Your task to perform on an android device: Open ESPN.com Image 0: 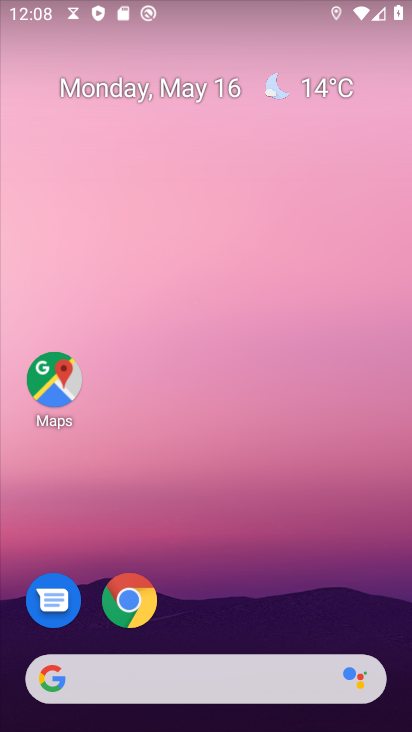
Step 0: drag from (283, 539) to (279, 1)
Your task to perform on an android device: Open ESPN.com Image 1: 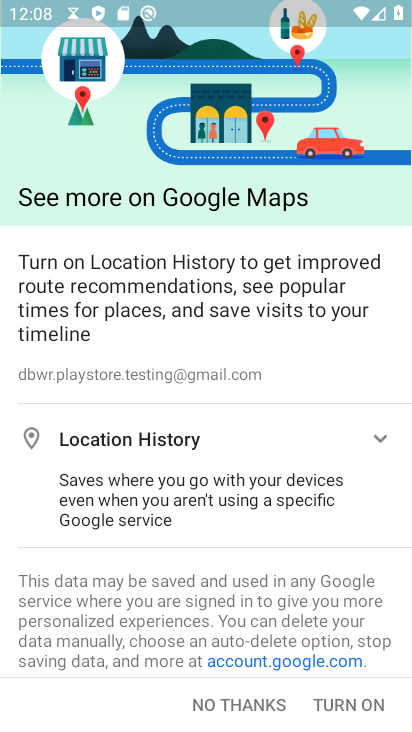
Step 1: click (336, 707)
Your task to perform on an android device: Open ESPN.com Image 2: 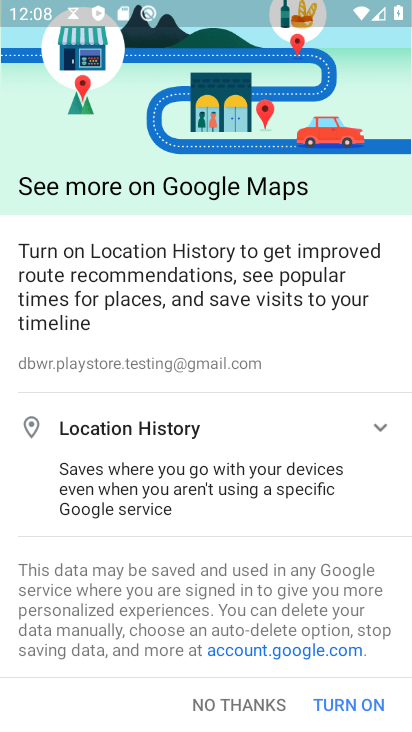
Step 2: click (337, 705)
Your task to perform on an android device: Open ESPN.com Image 3: 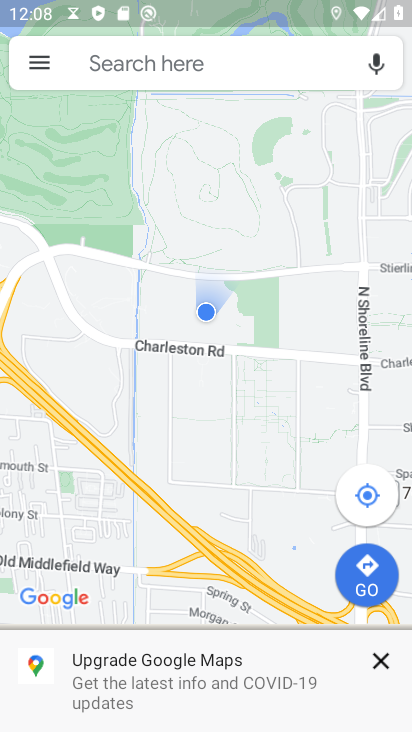
Step 3: press back button
Your task to perform on an android device: Open ESPN.com Image 4: 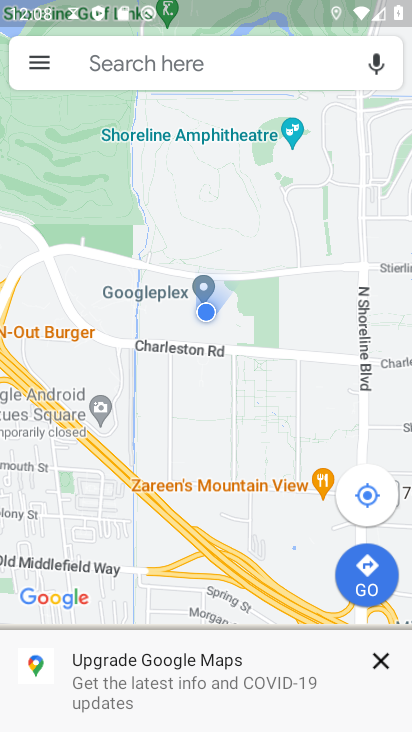
Step 4: press back button
Your task to perform on an android device: Open ESPN.com Image 5: 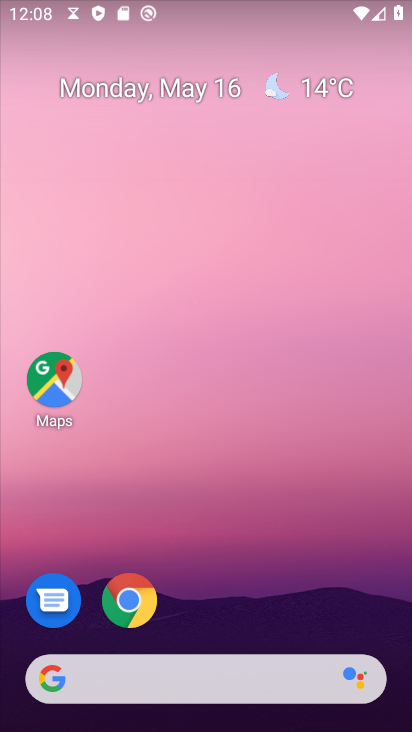
Step 5: click (124, 596)
Your task to perform on an android device: Open ESPN.com Image 6: 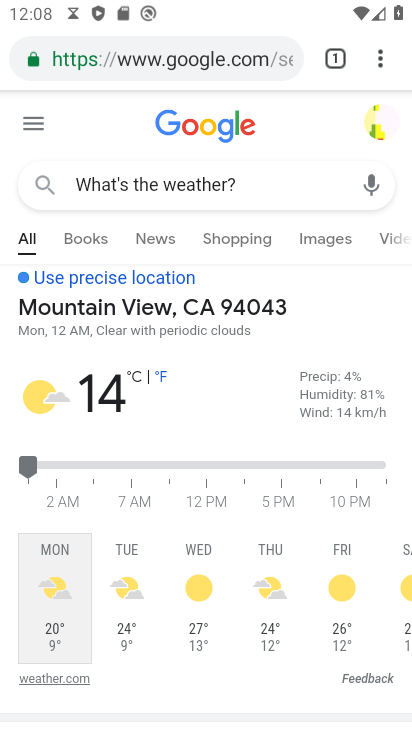
Step 6: click (181, 45)
Your task to perform on an android device: Open ESPN.com Image 7: 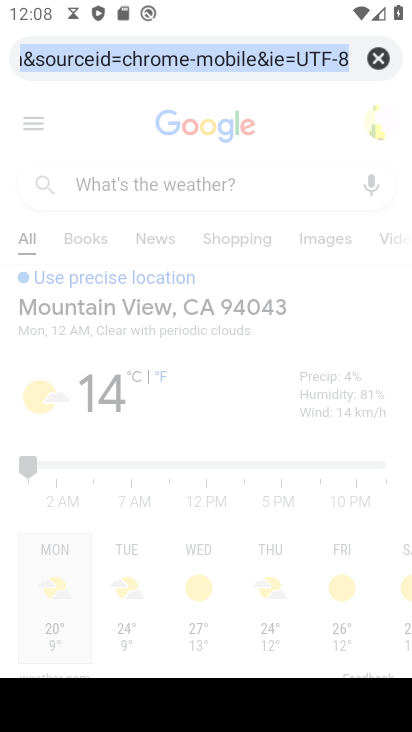
Step 7: click (382, 51)
Your task to perform on an android device: Open ESPN.com Image 8: 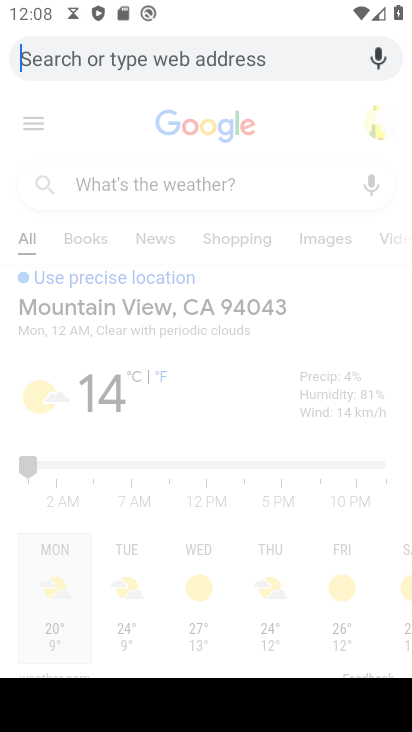
Step 8: type "ESPN.com"
Your task to perform on an android device: Open ESPN.com Image 9: 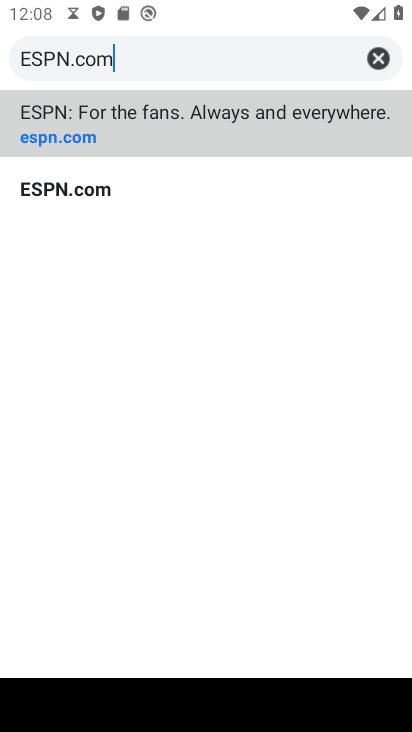
Step 9: type ""
Your task to perform on an android device: Open ESPN.com Image 10: 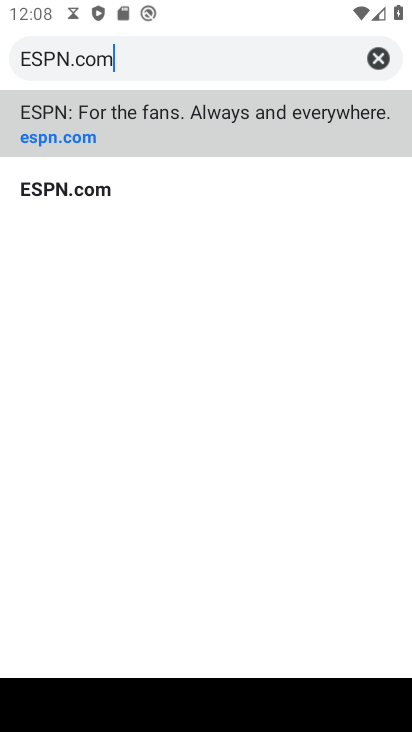
Step 10: click (115, 140)
Your task to perform on an android device: Open ESPN.com Image 11: 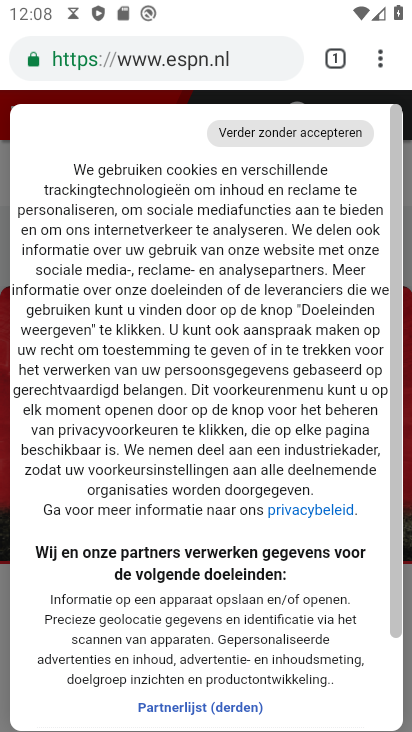
Step 11: drag from (251, 639) to (273, 167)
Your task to perform on an android device: Open ESPN.com Image 12: 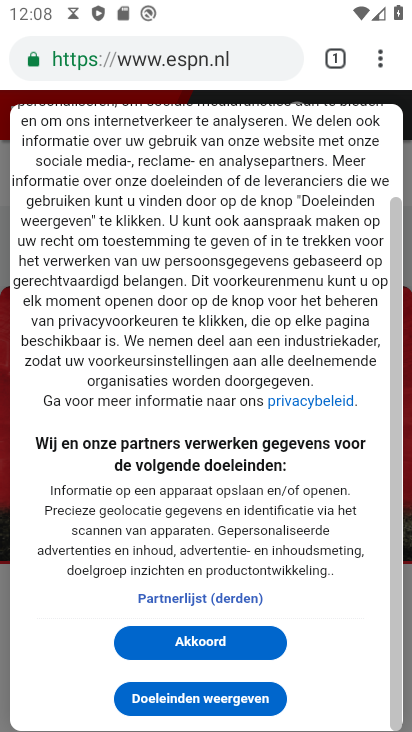
Step 12: click (219, 641)
Your task to perform on an android device: Open ESPN.com Image 13: 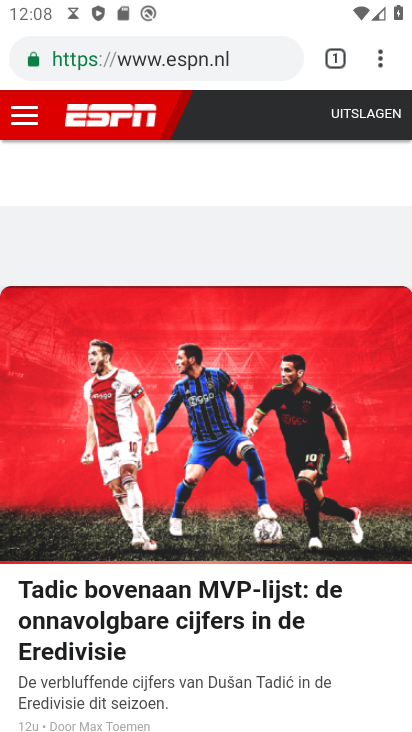
Step 13: task complete